Your task to perform on an android device: open the mobile data screen to see how much data has been used Image 0: 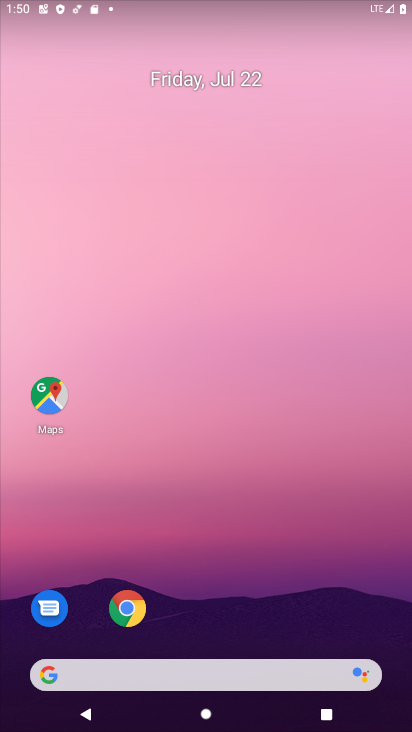
Step 0: drag from (245, 604) to (239, 4)
Your task to perform on an android device: open the mobile data screen to see how much data has been used Image 1: 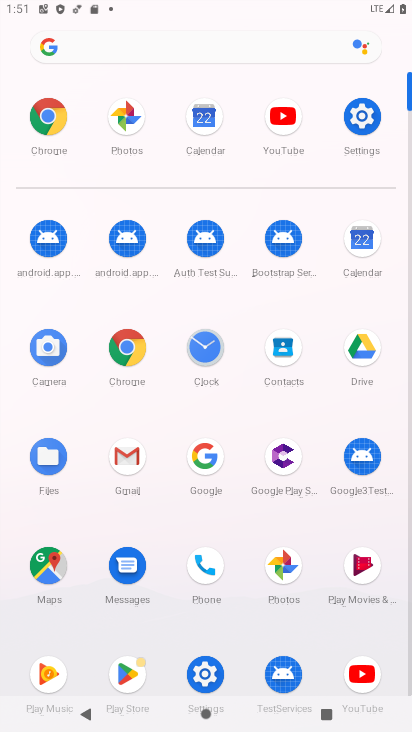
Step 1: click (367, 113)
Your task to perform on an android device: open the mobile data screen to see how much data has been used Image 2: 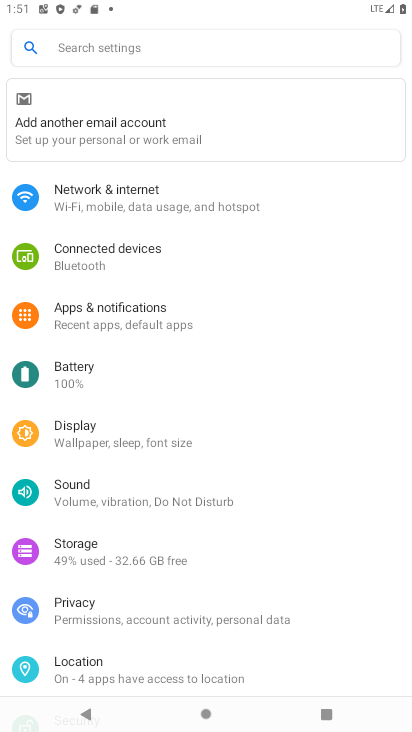
Step 2: click (90, 199)
Your task to perform on an android device: open the mobile data screen to see how much data has been used Image 3: 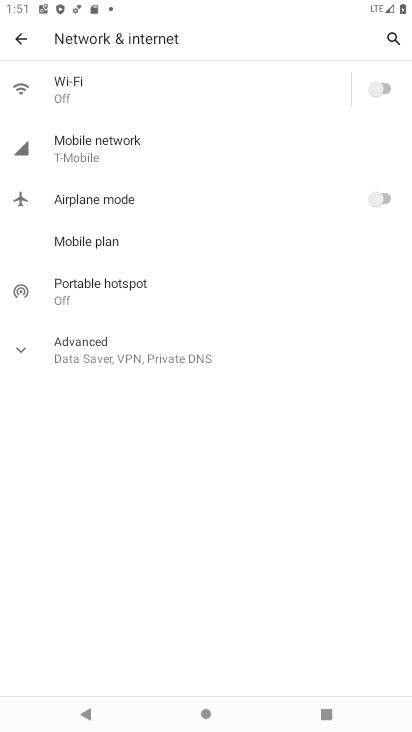
Step 3: click (86, 148)
Your task to perform on an android device: open the mobile data screen to see how much data has been used Image 4: 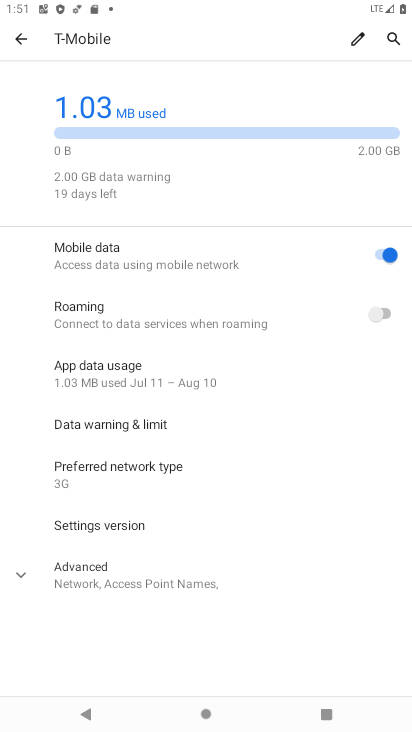
Step 4: click (98, 362)
Your task to perform on an android device: open the mobile data screen to see how much data has been used Image 5: 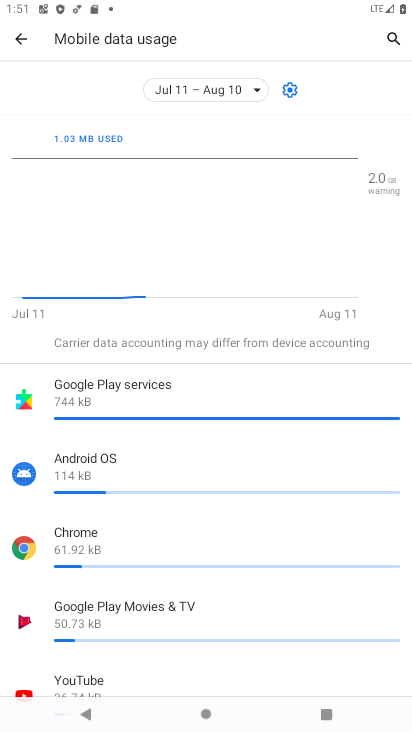
Step 5: task complete